Your task to perform on an android device: open app "Facebook Messenger" (install if not already installed), go to login, and select forgot password Image 0: 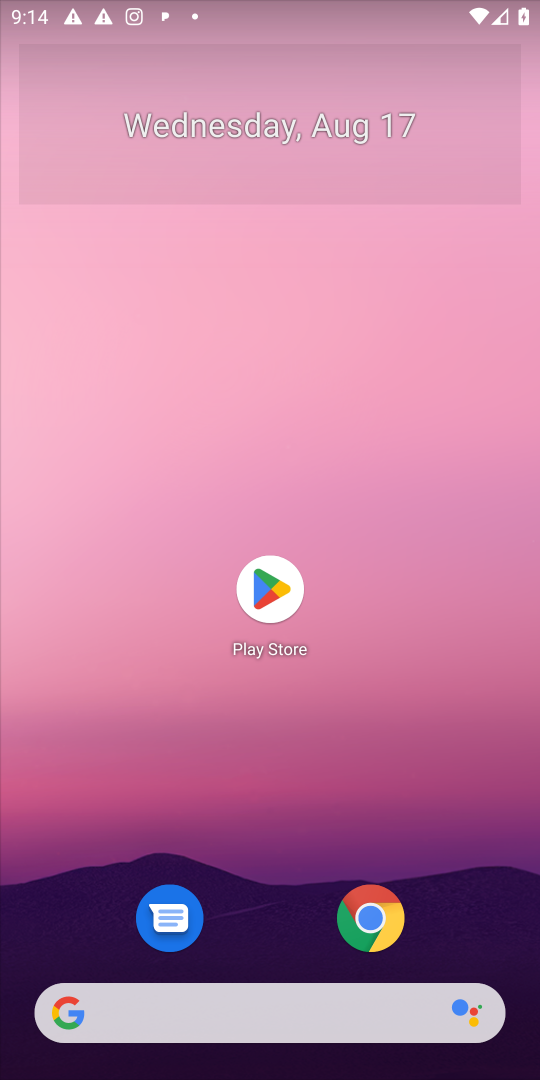
Step 0: click (262, 576)
Your task to perform on an android device: open app "Facebook Messenger" (install if not already installed), go to login, and select forgot password Image 1: 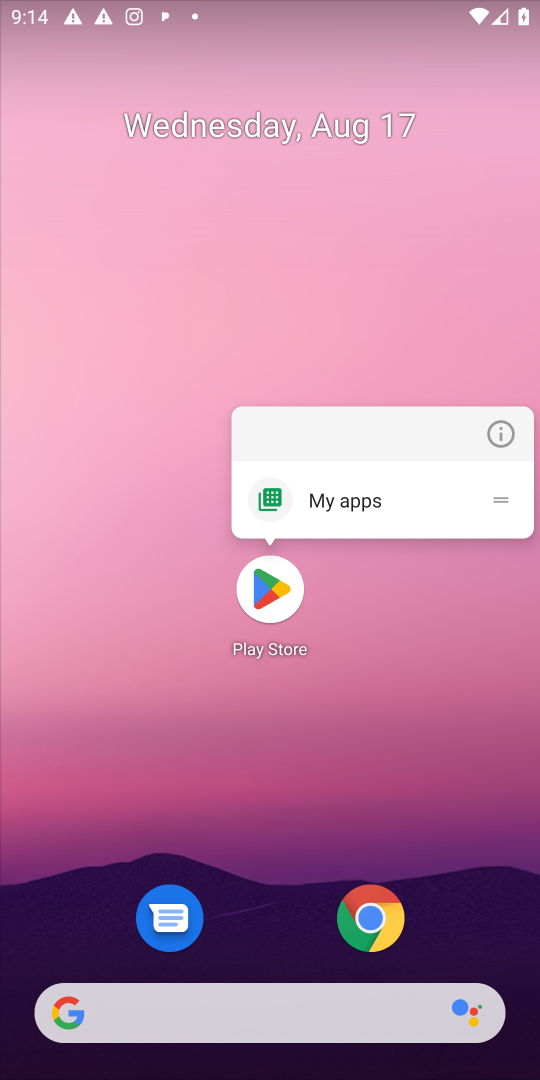
Step 1: click (266, 573)
Your task to perform on an android device: open app "Facebook Messenger" (install if not already installed), go to login, and select forgot password Image 2: 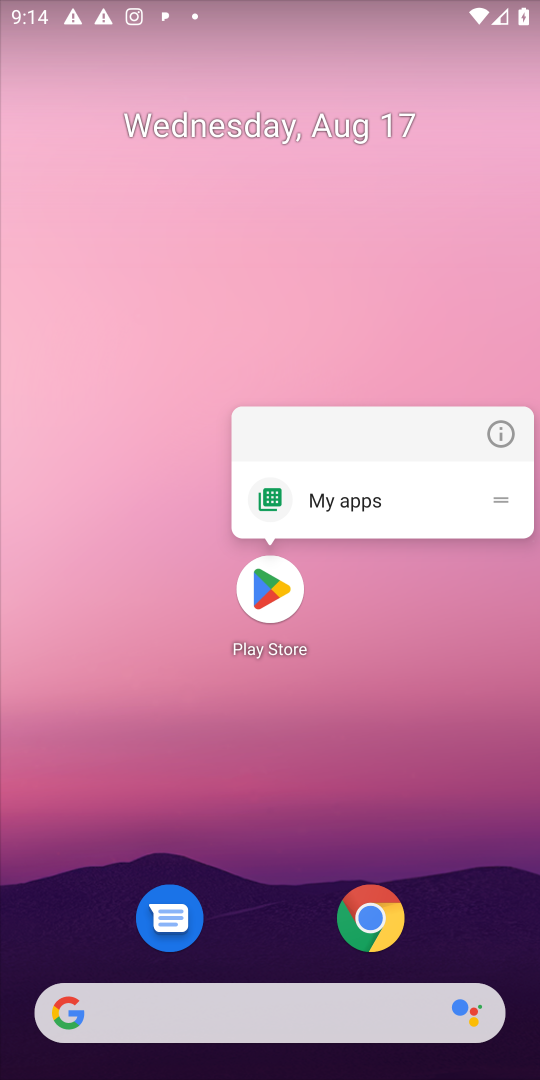
Step 2: click (266, 581)
Your task to perform on an android device: open app "Facebook Messenger" (install if not already installed), go to login, and select forgot password Image 3: 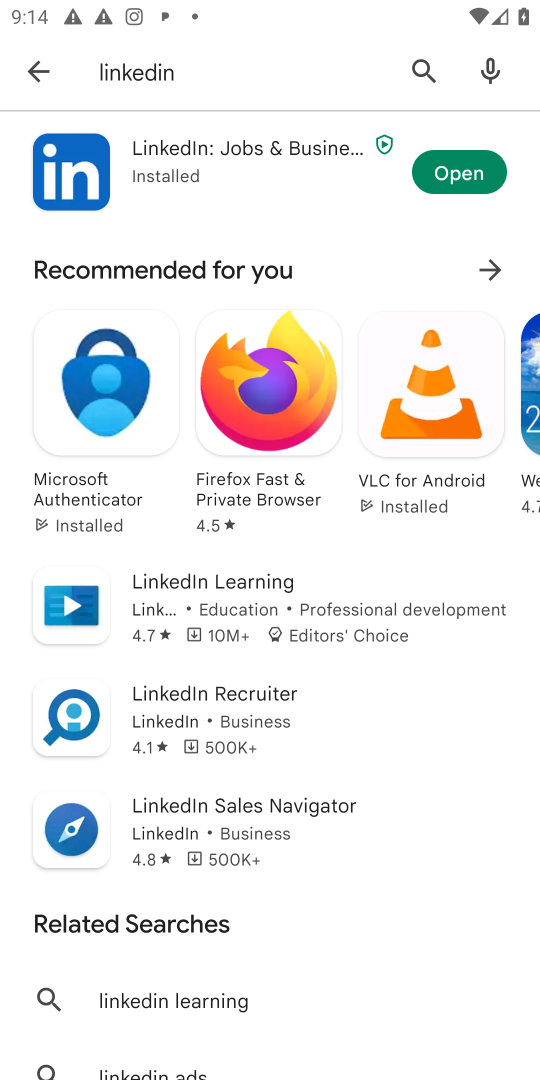
Step 3: click (418, 73)
Your task to perform on an android device: open app "Facebook Messenger" (install if not already installed), go to login, and select forgot password Image 4: 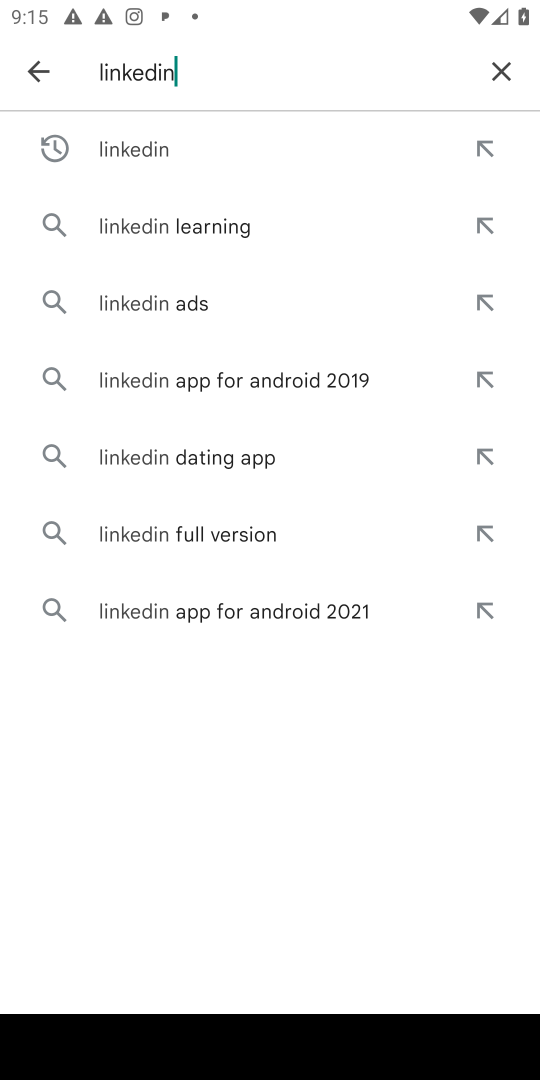
Step 4: click (494, 76)
Your task to perform on an android device: open app "Facebook Messenger" (install if not already installed), go to login, and select forgot password Image 5: 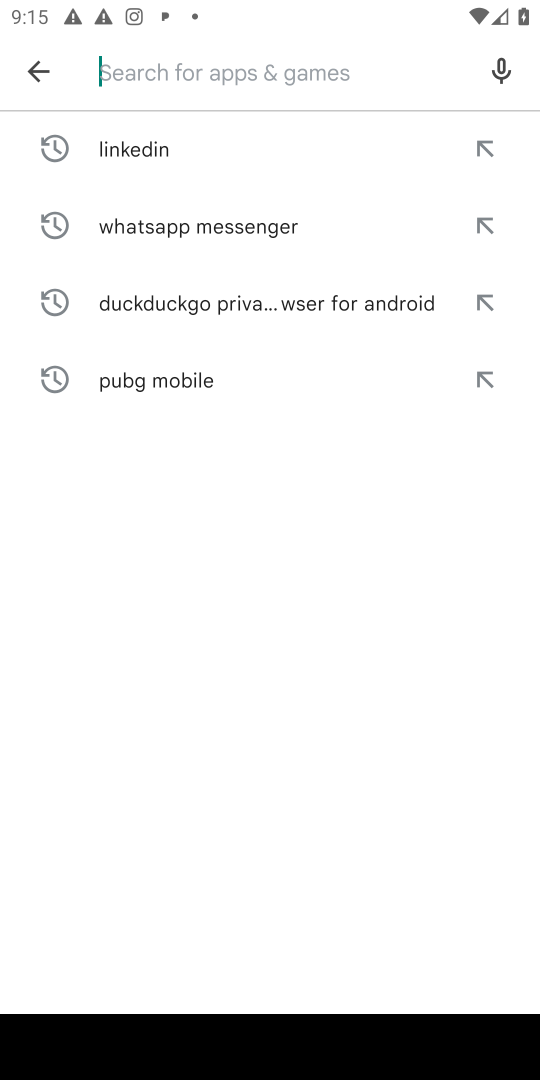
Step 5: type "Facebook Messenger"
Your task to perform on an android device: open app "Facebook Messenger" (install if not already installed), go to login, and select forgot password Image 6: 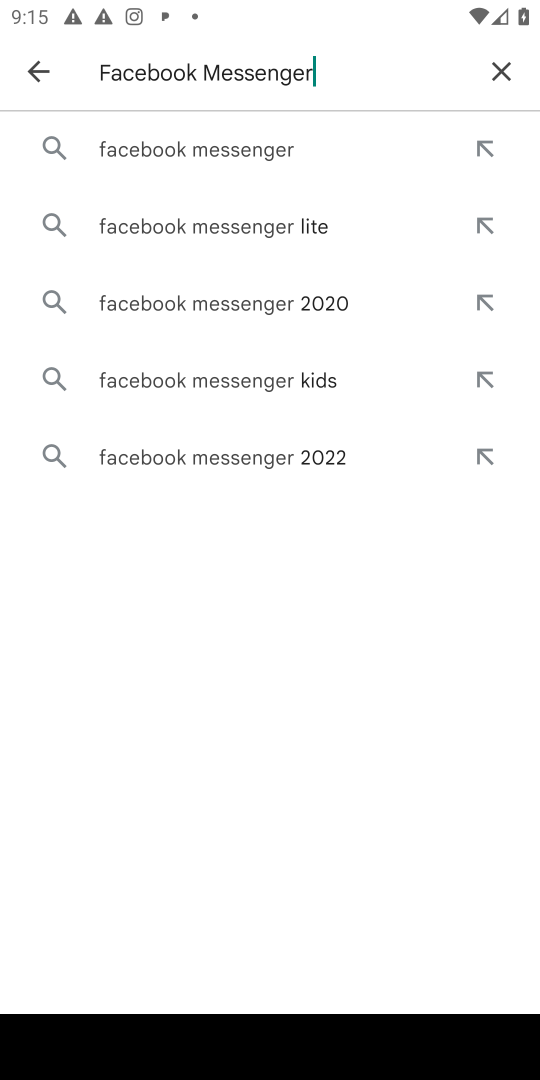
Step 6: click (181, 143)
Your task to perform on an android device: open app "Facebook Messenger" (install if not already installed), go to login, and select forgot password Image 7: 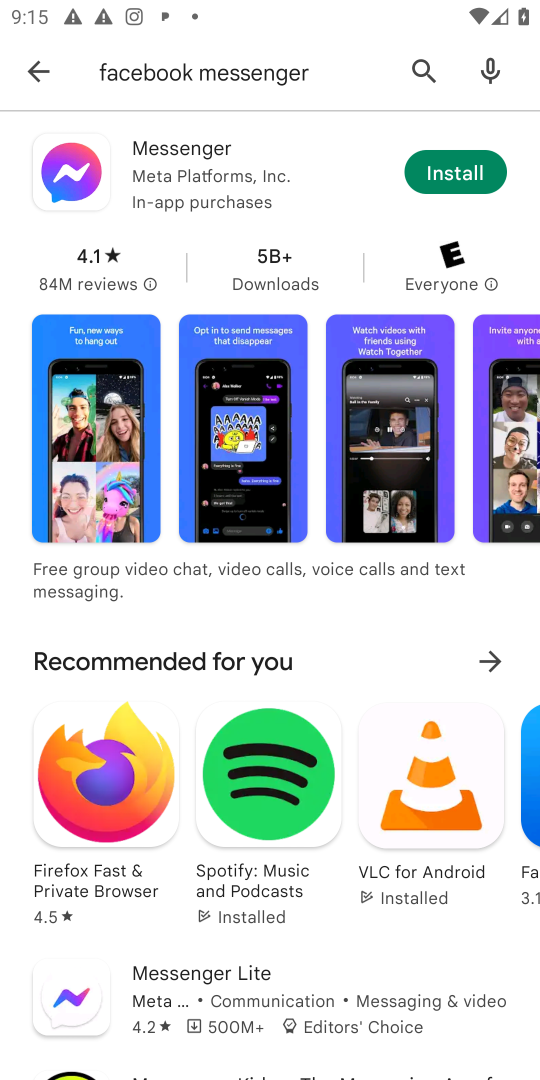
Step 7: click (470, 174)
Your task to perform on an android device: open app "Facebook Messenger" (install if not already installed), go to login, and select forgot password Image 8: 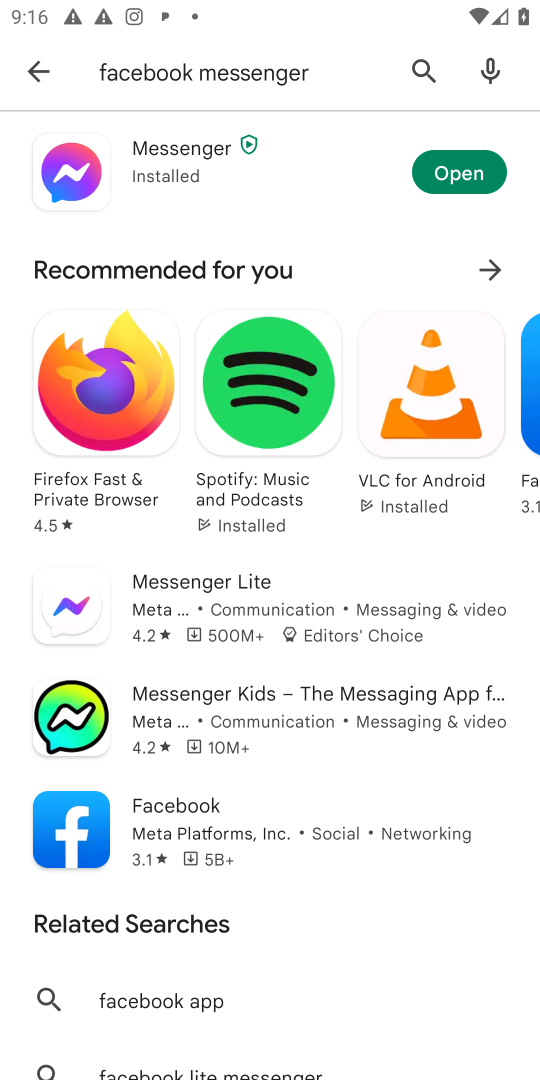
Step 8: click (477, 175)
Your task to perform on an android device: open app "Facebook Messenger" (install if not already installed), go to login, and select forgot password Image 9: 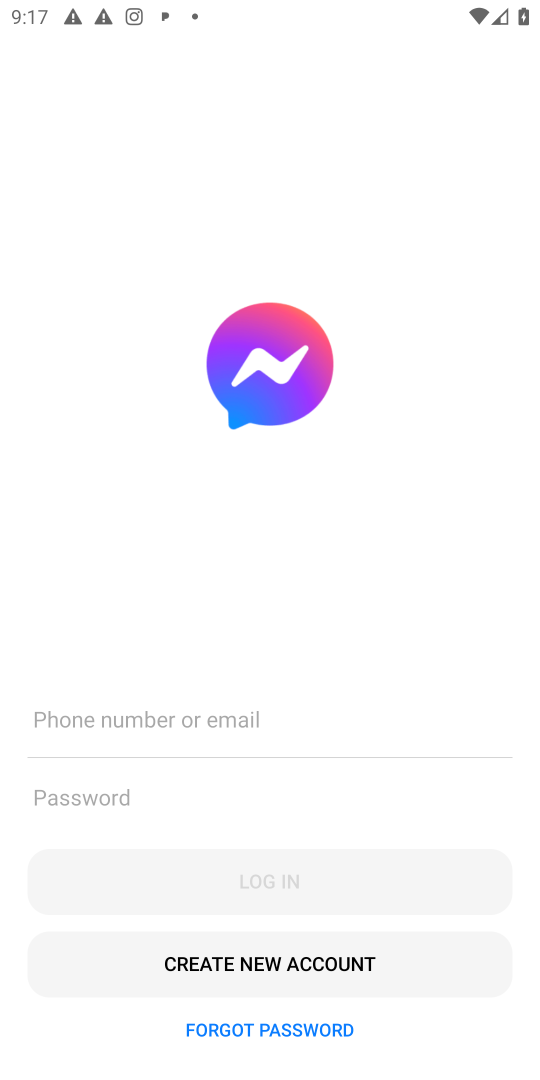
Step 9: click (298, 1028)
Your task to perform on an android device: open app "Facebook Messenger" (install if not already installed), go to login, and select forgot password Image 10: 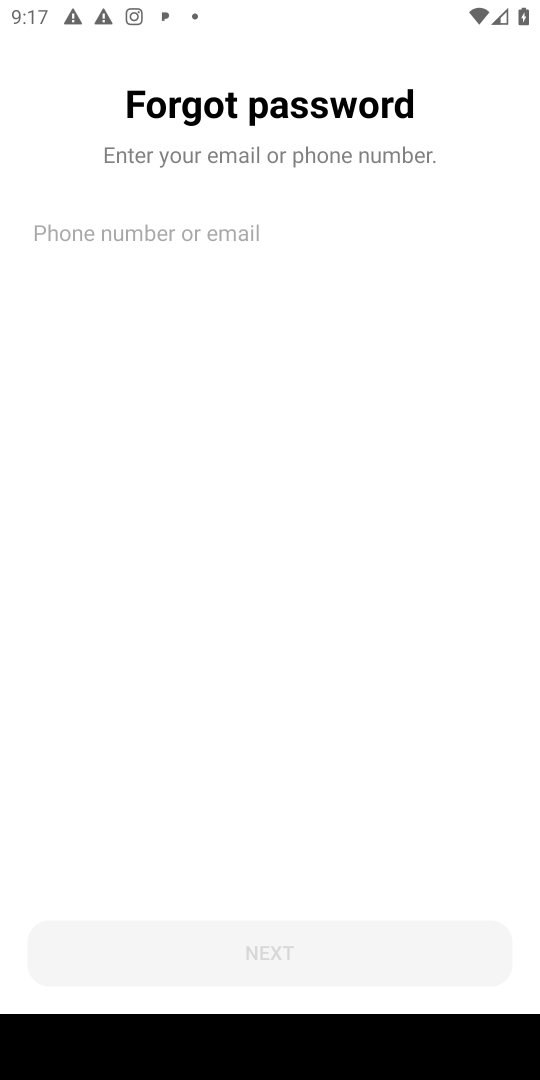
Step 10: task complete